Your task to perform on an android device: View the shopping cart on amazon.com. Add razer blade to the cart on amazon.com, then select checkout. Image 0: 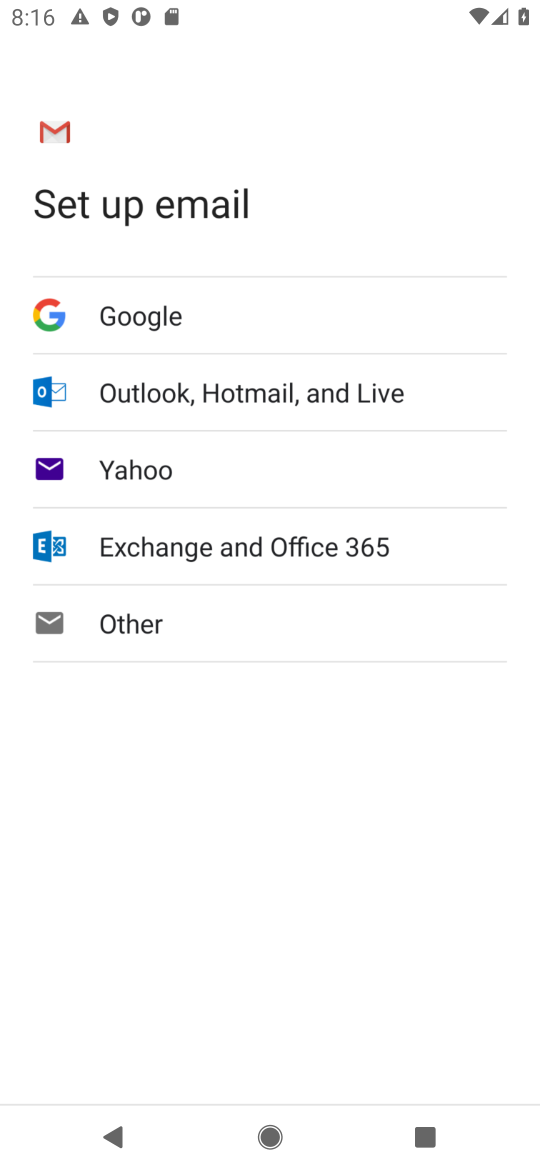
Step 0: press home button
Your task to perform on an android device: View the shopping cart on amazon.com. Add razer blade to the cart on amazon.com, then select checkout. Image 1: 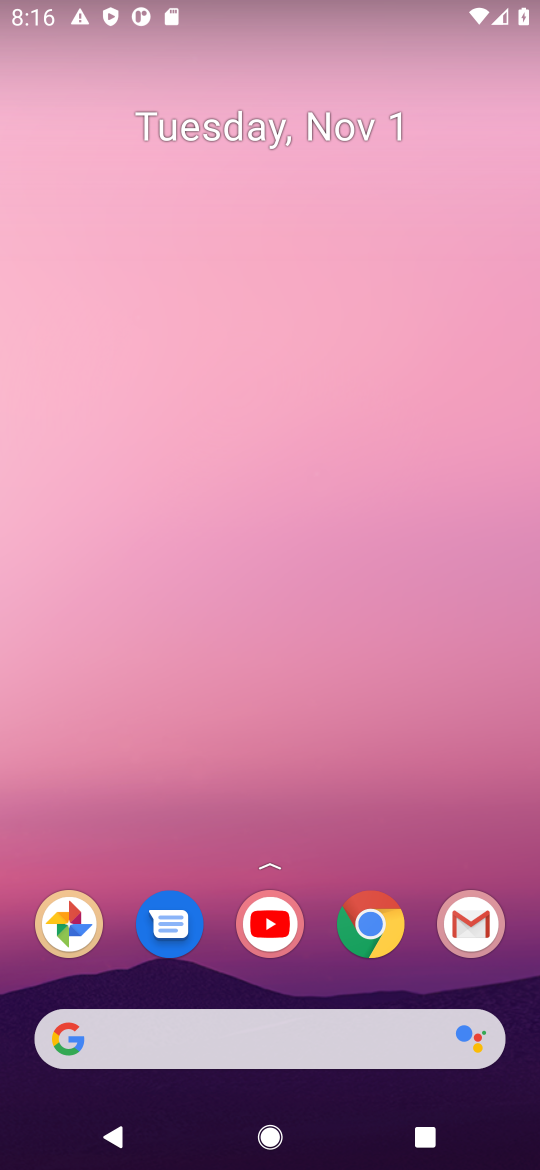
Step 1: press home button
Your task to perform on an android device: View the shopping cart on amazon.com. Add razer blade to the cart on amazon.com, then select checkout. Image 2: 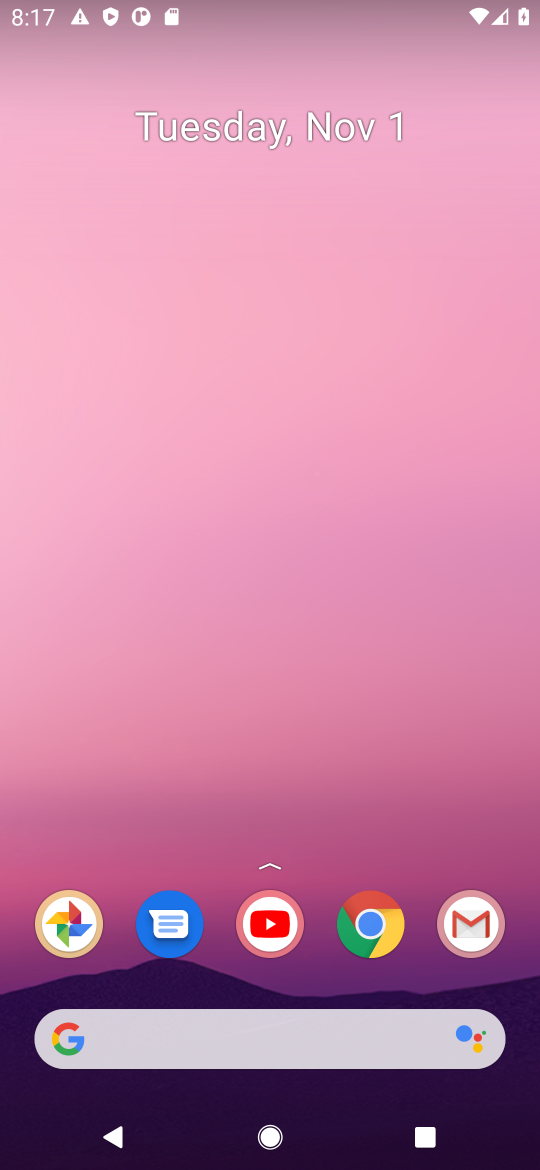
Step 2: click (108, 1029)
Your task to perform on an android device: View the shopping cart on amazon.com. Add razer blade to the cart on amazon.com, then select checkout. Image 3: 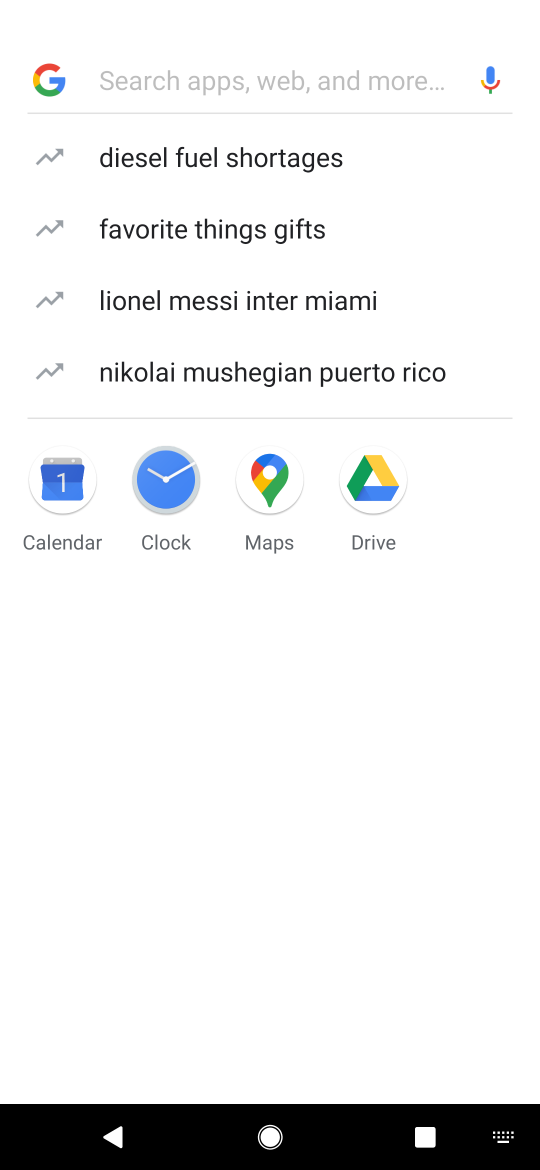
Step 3: type "amazon.com"
Your task to perform on an android device: View the shopping cart on amazon.com. Add razer blade to the cart on amazon.com, then select checkout. Image 4: 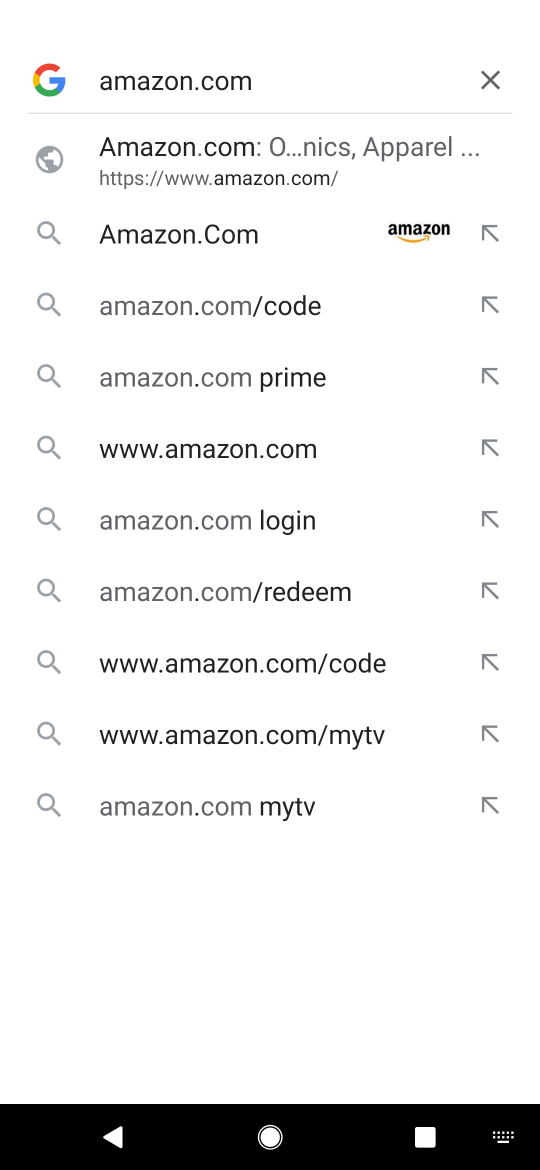
Step 4: press enter
Your task to perform on an android device: View the shopping cart on amazon.com. Add razer blade to the cart on amazon.com, then select checkout. Image 5: 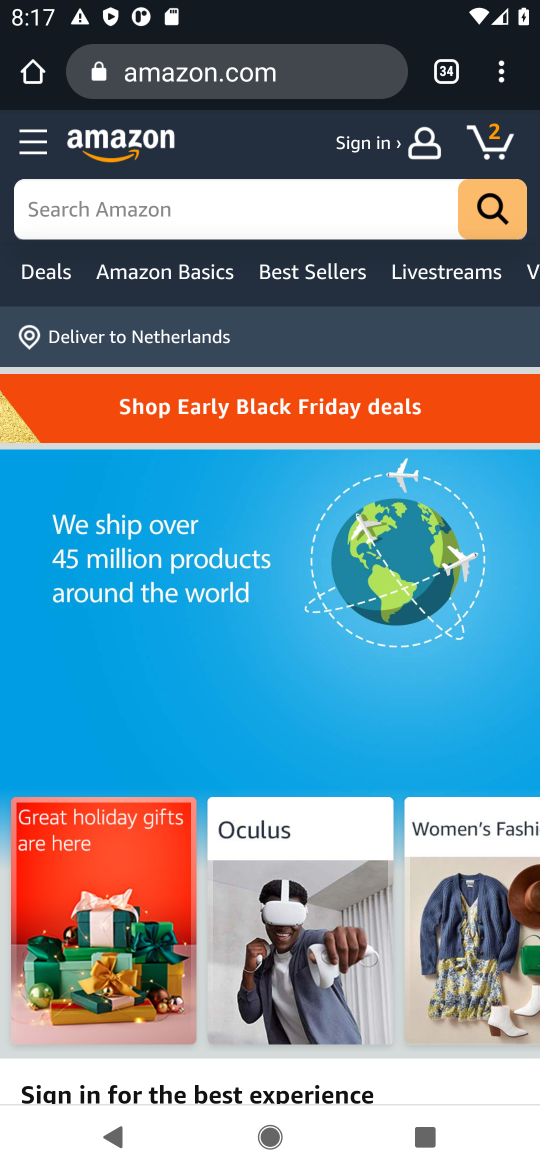
Step 5: click (494, 138)
Your task to perform on an android device: View the shopping cart on amazon.com. Add razer blade to the cart on amazon.com, then select checkout. Image 6: 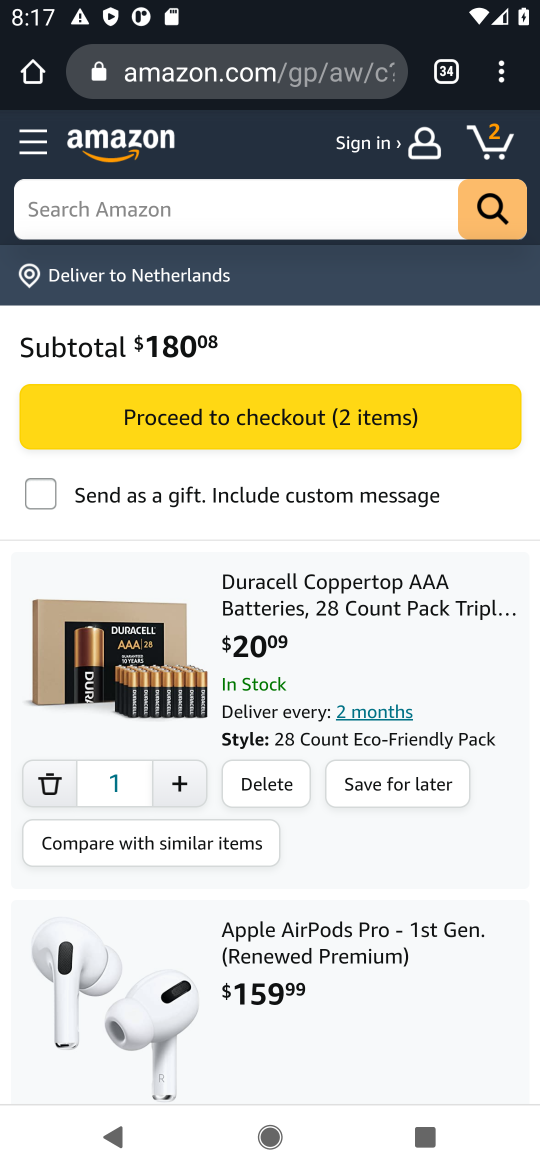
Step 6: click (76, 198)
Your task to perform on an android device: View the shopping cart on amazon.com. Add razer blade to the cart on amazon.com, then select checkout. Image 7: 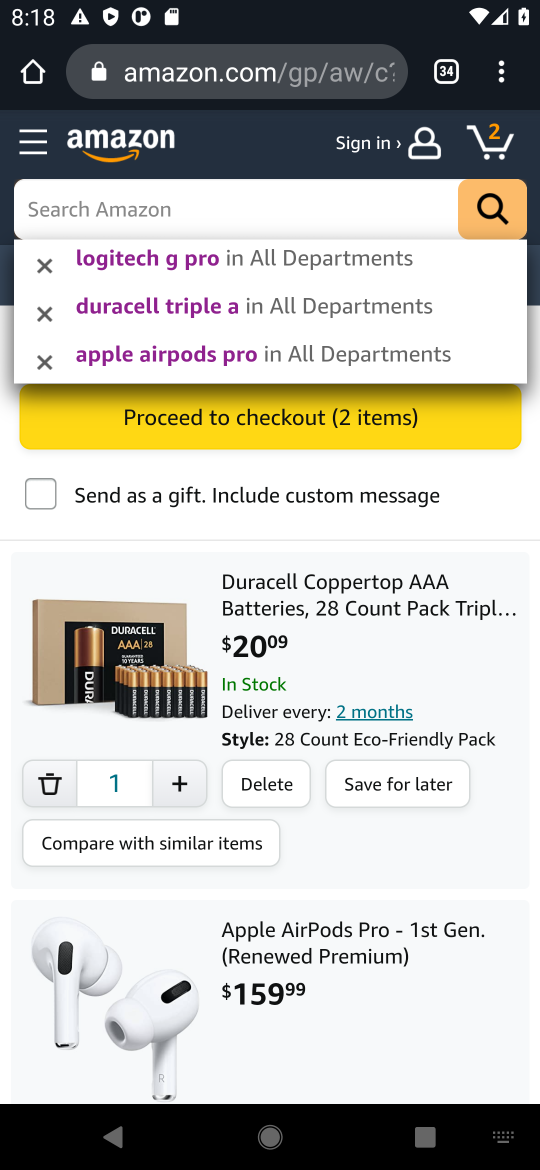
Step 7: type "razer blade"
Your task to perform on an android device: View the shopping cart on amazon.com. Add razer blade to the cart on amazon.com, then select checkout. Image 8: 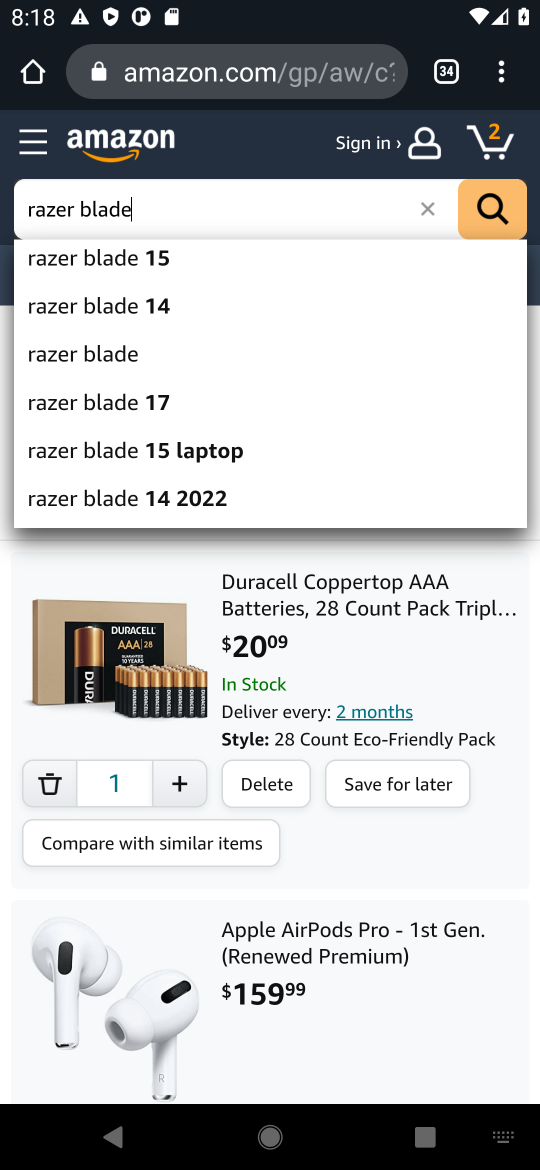
Step 8: click (488, 208)
Your task to perform on an android device: View the shopping cart on amazon.com. Add razer blade to the cart on amazon.com, then select checkout. Image 9: 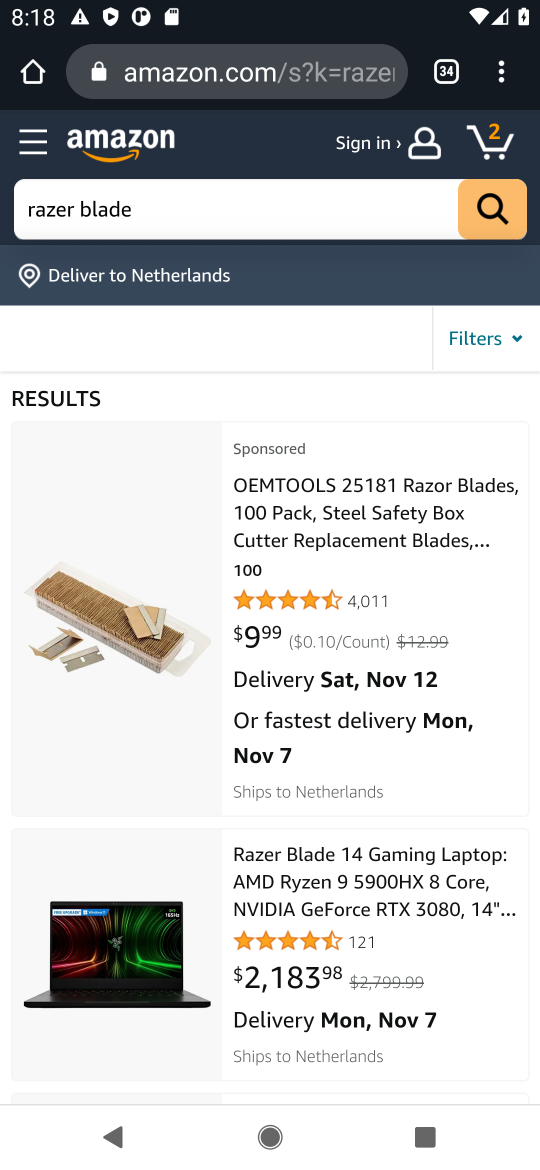
Step 9: drag from (358, 931) to (404, 639)
Your task to perform on an android device: View the shopping cart on amazon.com. Add razer blade to the cart on amazon.com, then select checkout. Image 10: 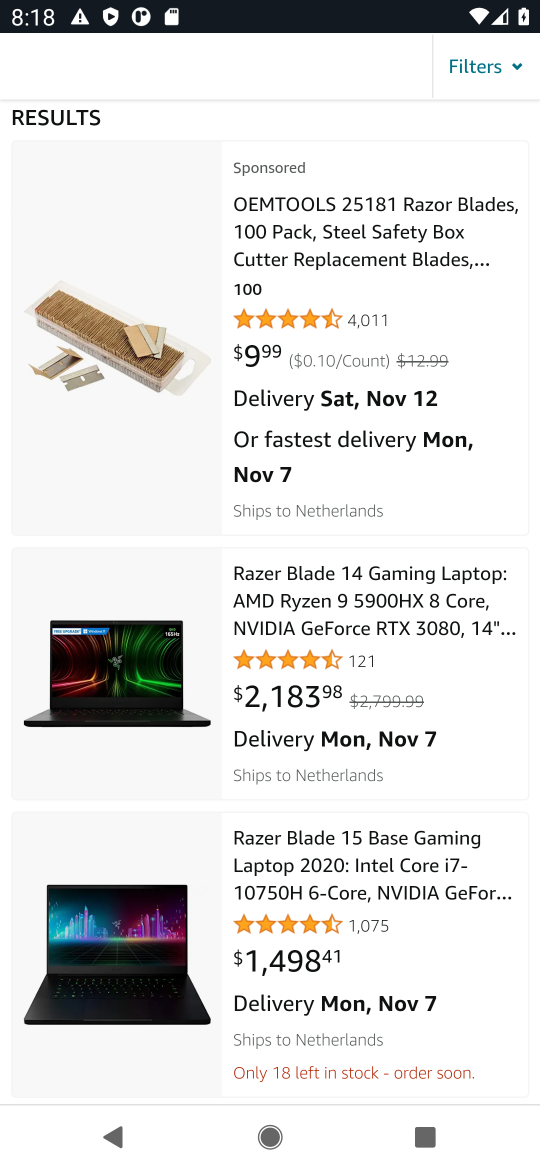
Step 10: click (310, 602)
Your task to perform on an android device: View the shopping cart on amazon.com. Add razer blade to the cart on amazon.com, then select checkout. Image 11: 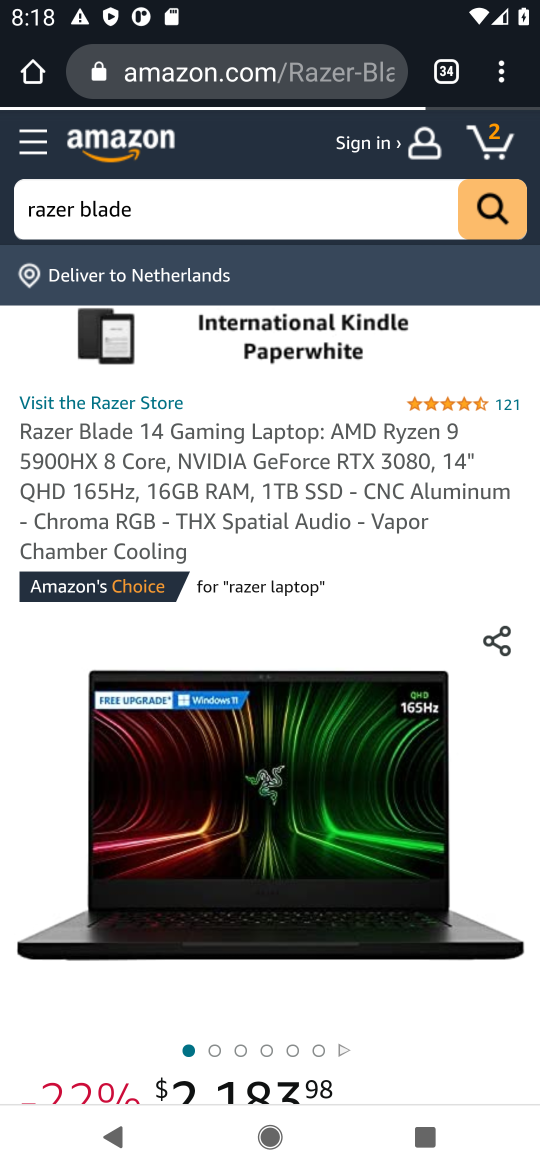
Step 11: drag from (350, 892) to (377, 424)
Your task to perform on an android device: View the shopping cart on amazon.com. Add razer blade to the cart on amazon.com, then select checkout. Image 12: 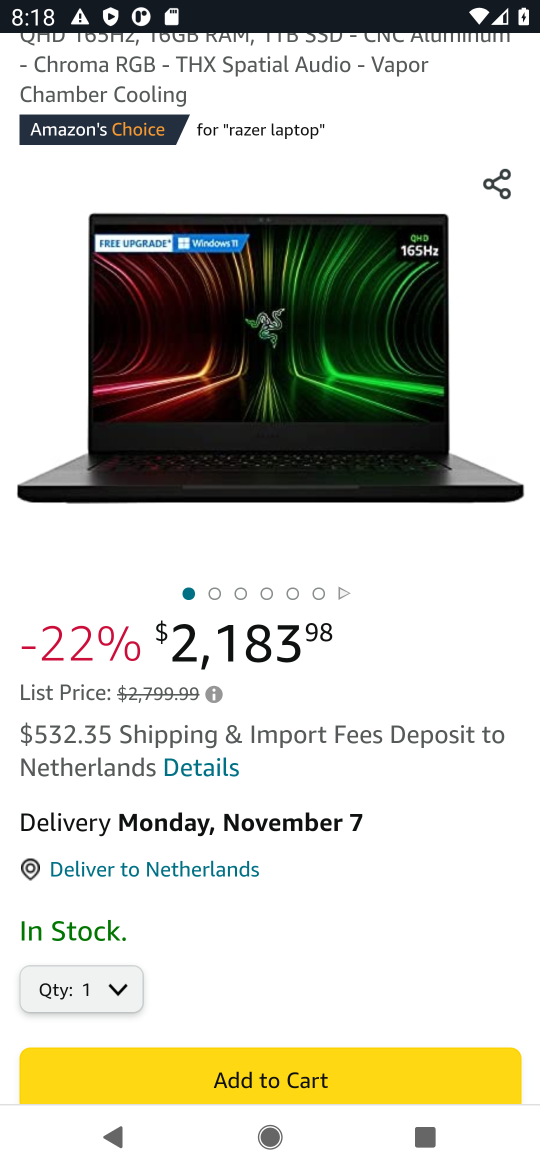
Step 12: drag from (380, 947) to (380, 399)
Your task to perform on an android device: View the shopping cart on amazon.com. Add razer blade to the cart on amazon.com, then select checkout. Image 13: 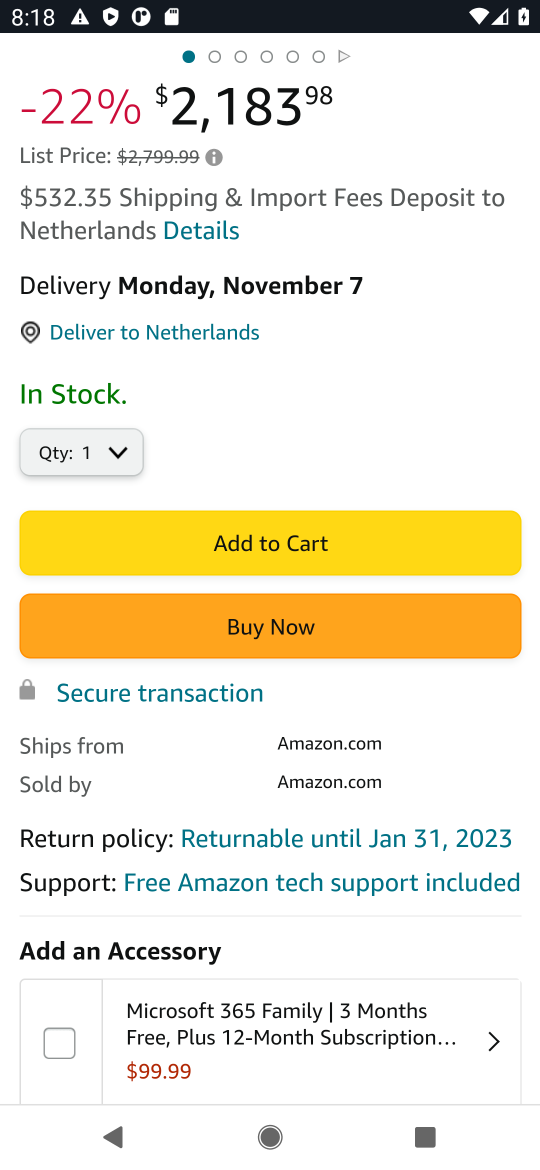
Step 13: click (255, 549)
Your task to perform on an android device: View the shopping cart on amazon.com. Add razer blade to the cart on amazon.com, then select checkout. Image 14: 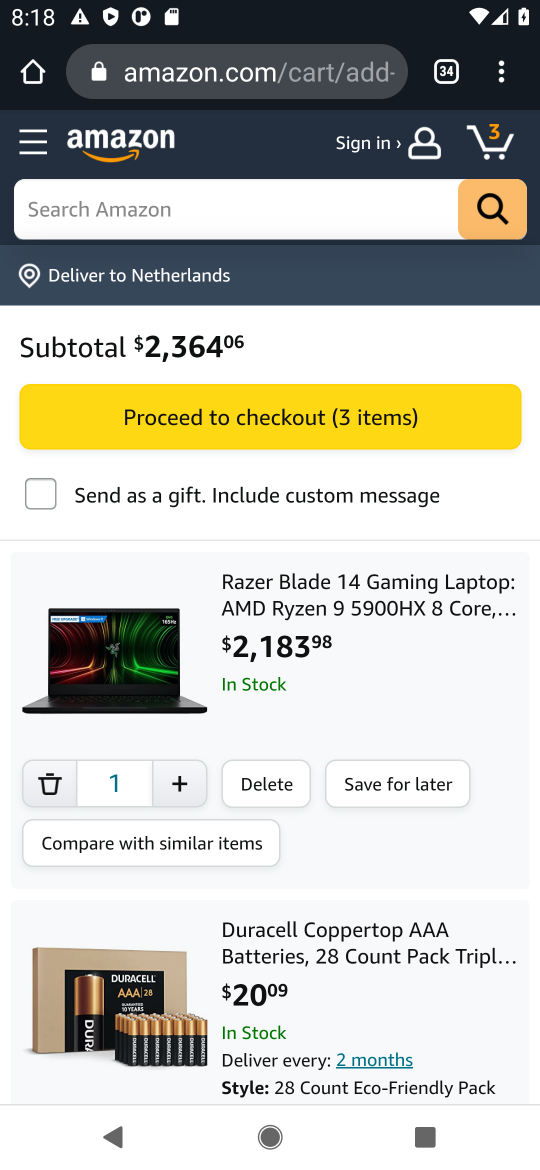
Step 14: click (261, 409)
Your task to perform on an android device: View the shopping cart on amazon.com. Add razer blade to the cart on amazon.com, then select checkout. Image 15: 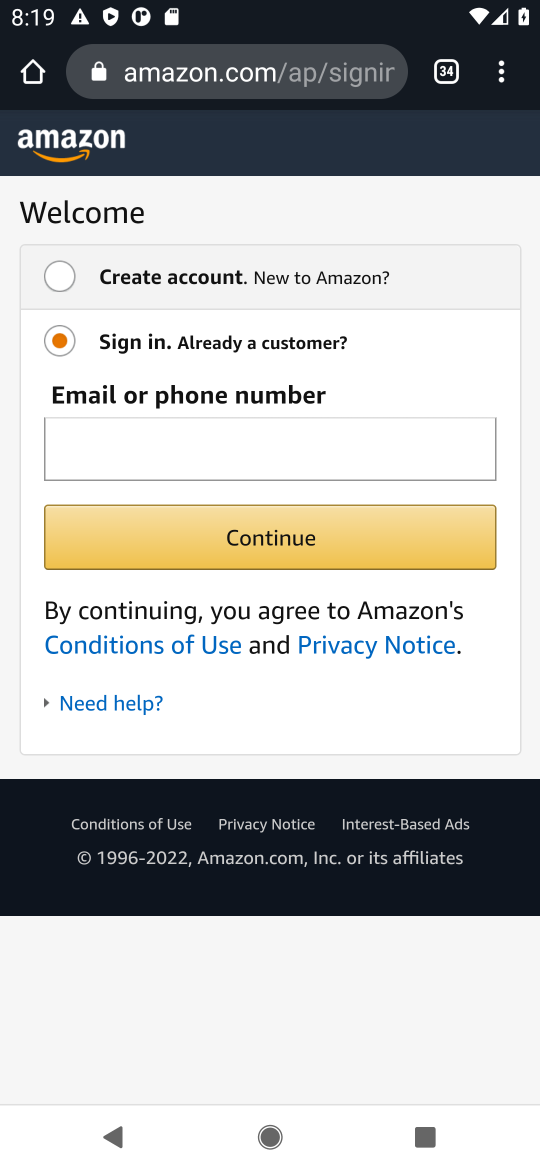
Step 15: task complete